Your task to perform on an android device: open app "Fetch Rewards" (install if not already installed) and go to login screen Image 0: 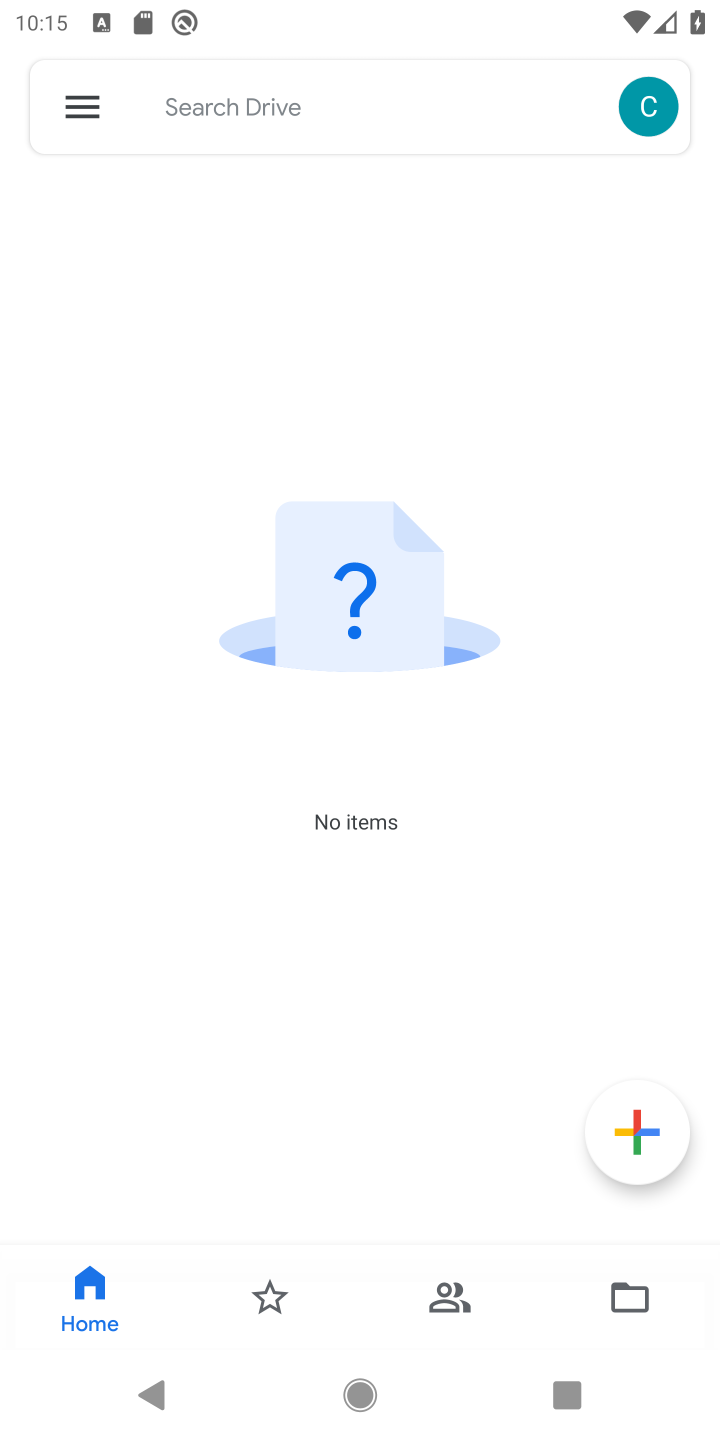
Step 0: press home button
Your task to perform on an android device: open app "Fetch Rewards" (install if not already installed) and go to login screen Image 1: 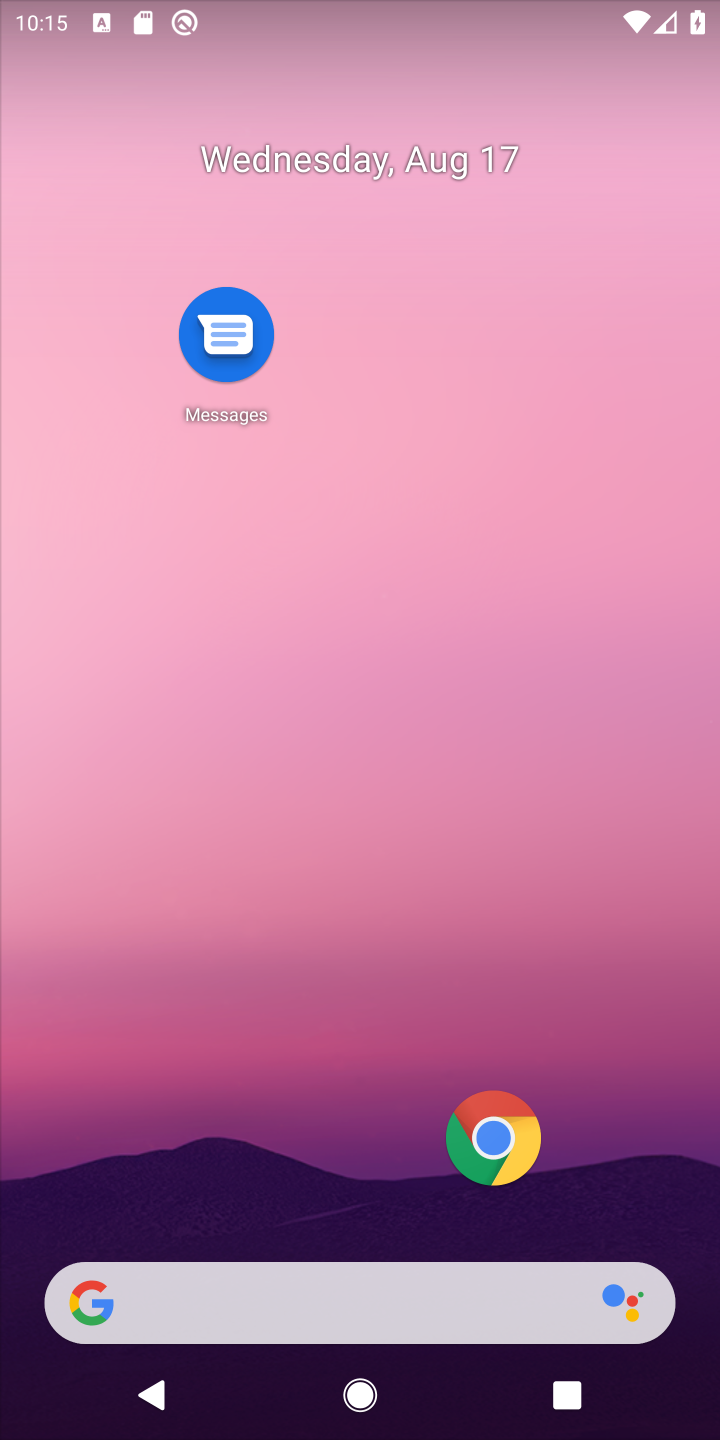
Step 1: drag from (335, 989) to (419, 290)
Your task to perform on an android device: open app "Fetch Rewards" (install if not already installed) and go to login screen Image 2: 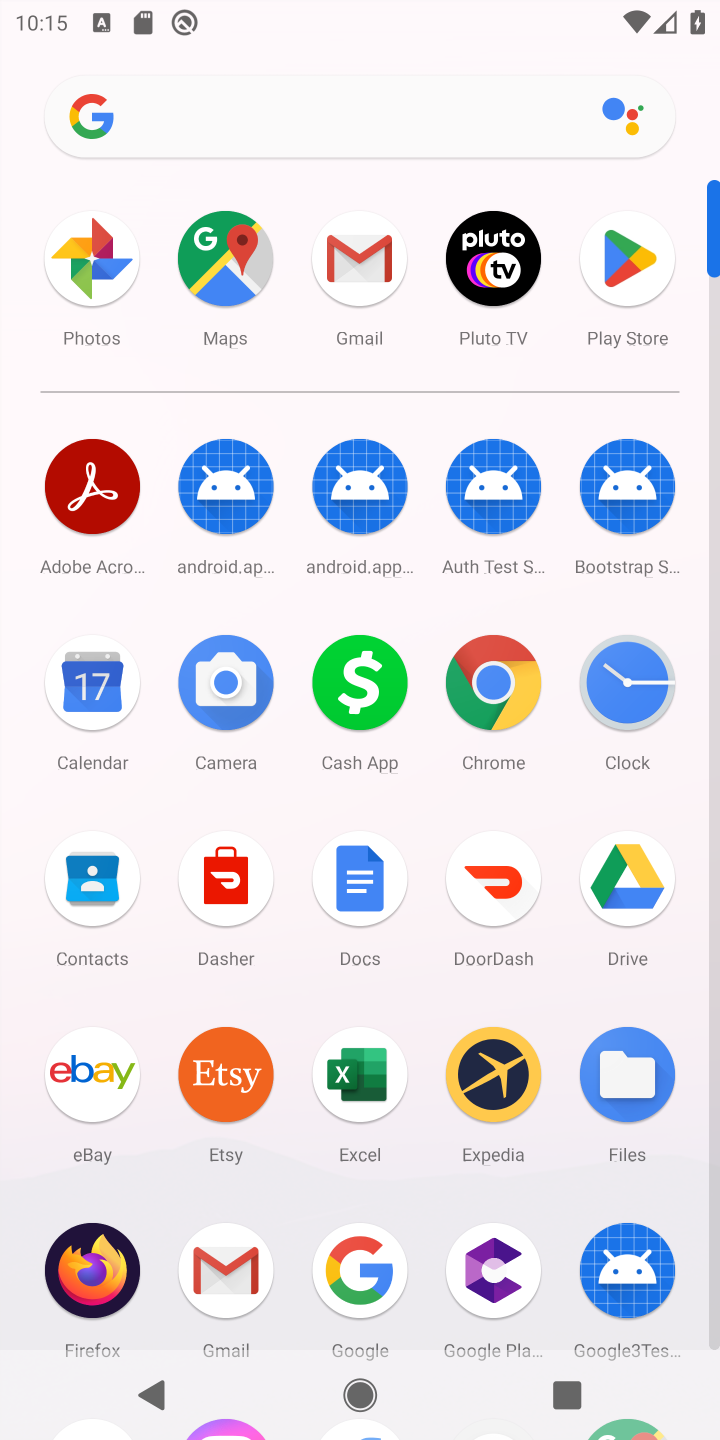
Step 2: click (636, 220)
Your task to perform on an android device: open app "Fetch Rewards" (install if not already installed) and go to login screen Image 3: 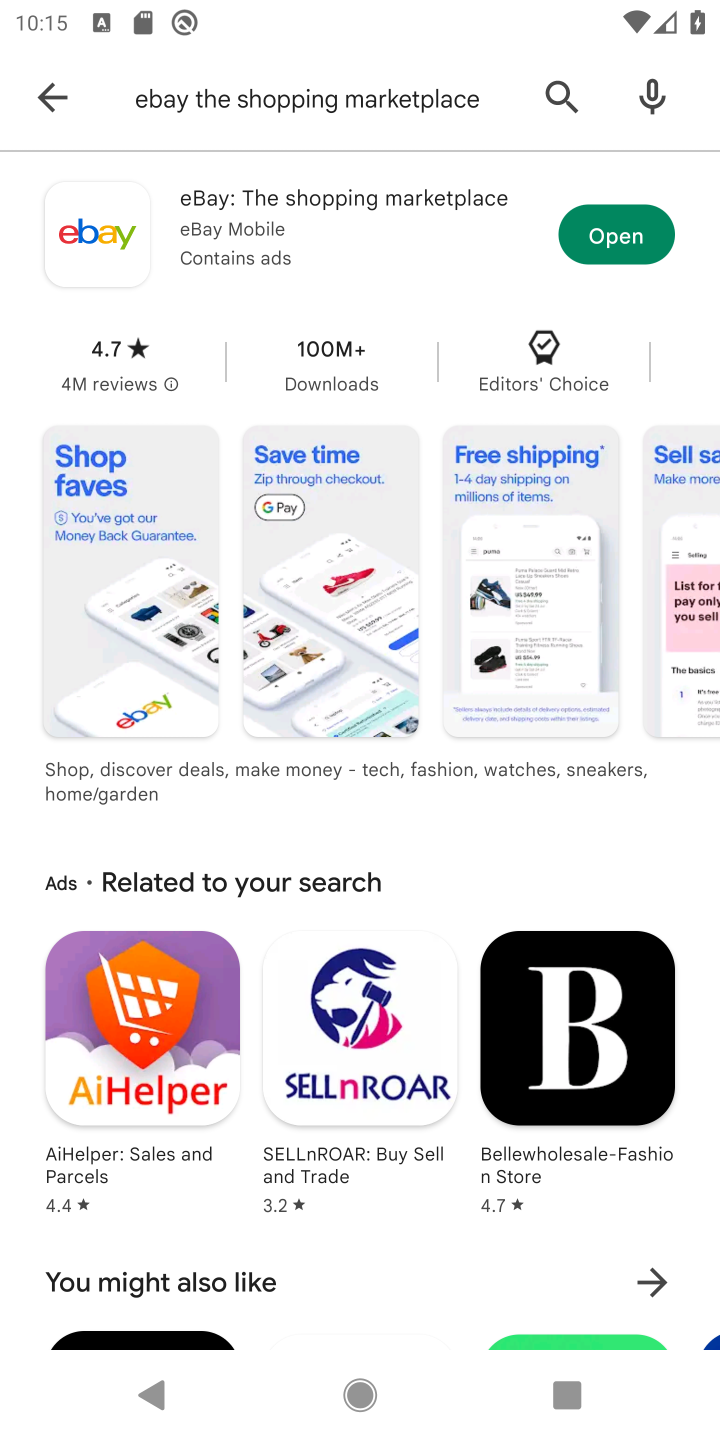
Step 3: click (62, 109)
Your task to perform on an android device: open app "Fetch Rewards" (install if not already installed) and go to login screen Image 4: 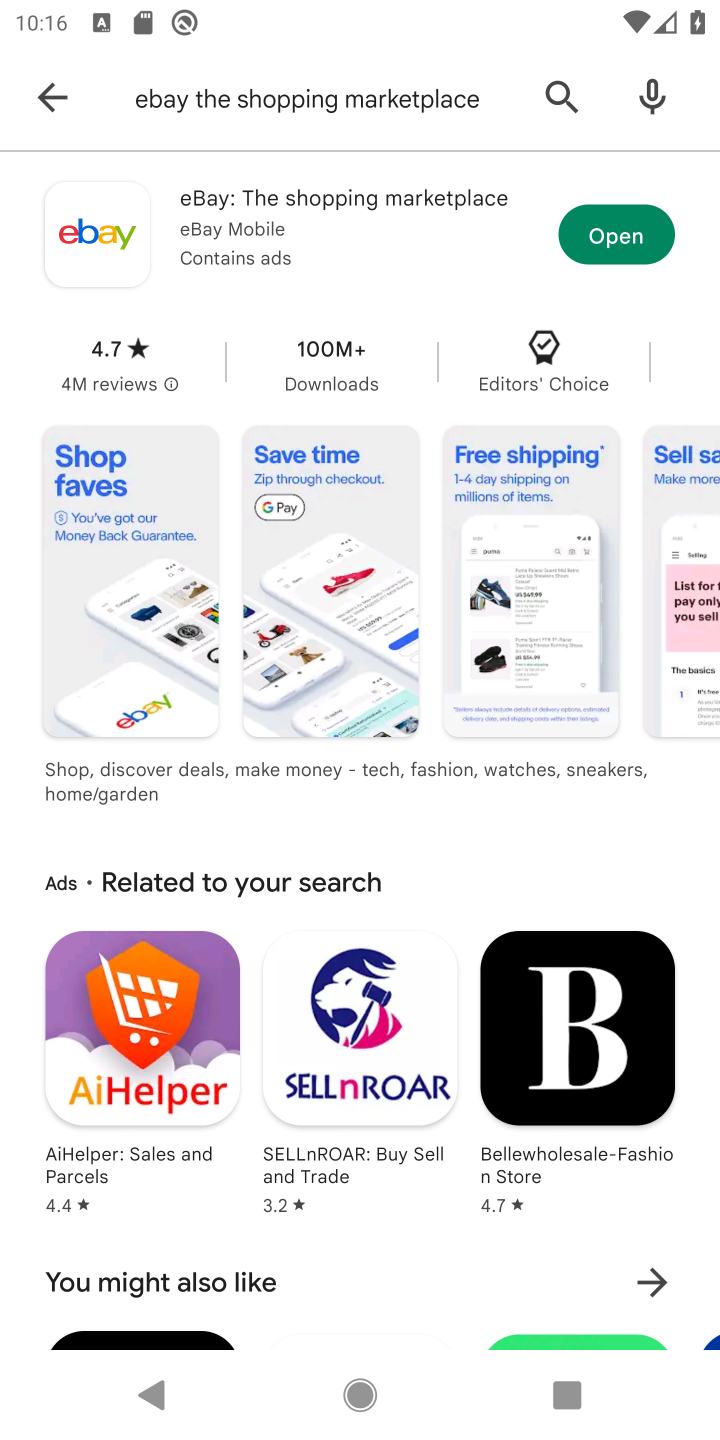
Step 4: click (52, 84)
Your task to perform on an android device: open app "Fetch Rewards" (install if not already installed) and go to login screen Image 5: 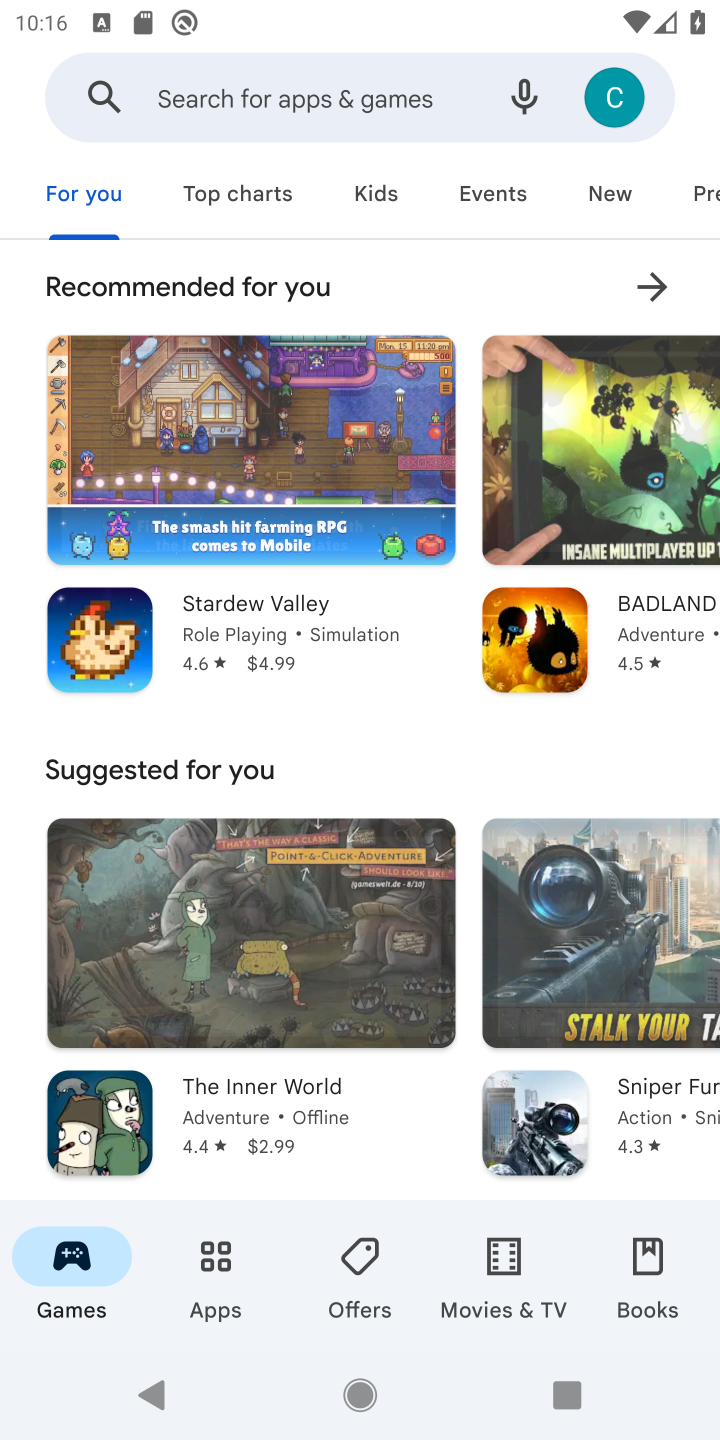
Step 5: click (327, 83)
Your task to perform on an android device: open app "Fetch Rewards" (install if not already installed) and go to login screen Image 6: 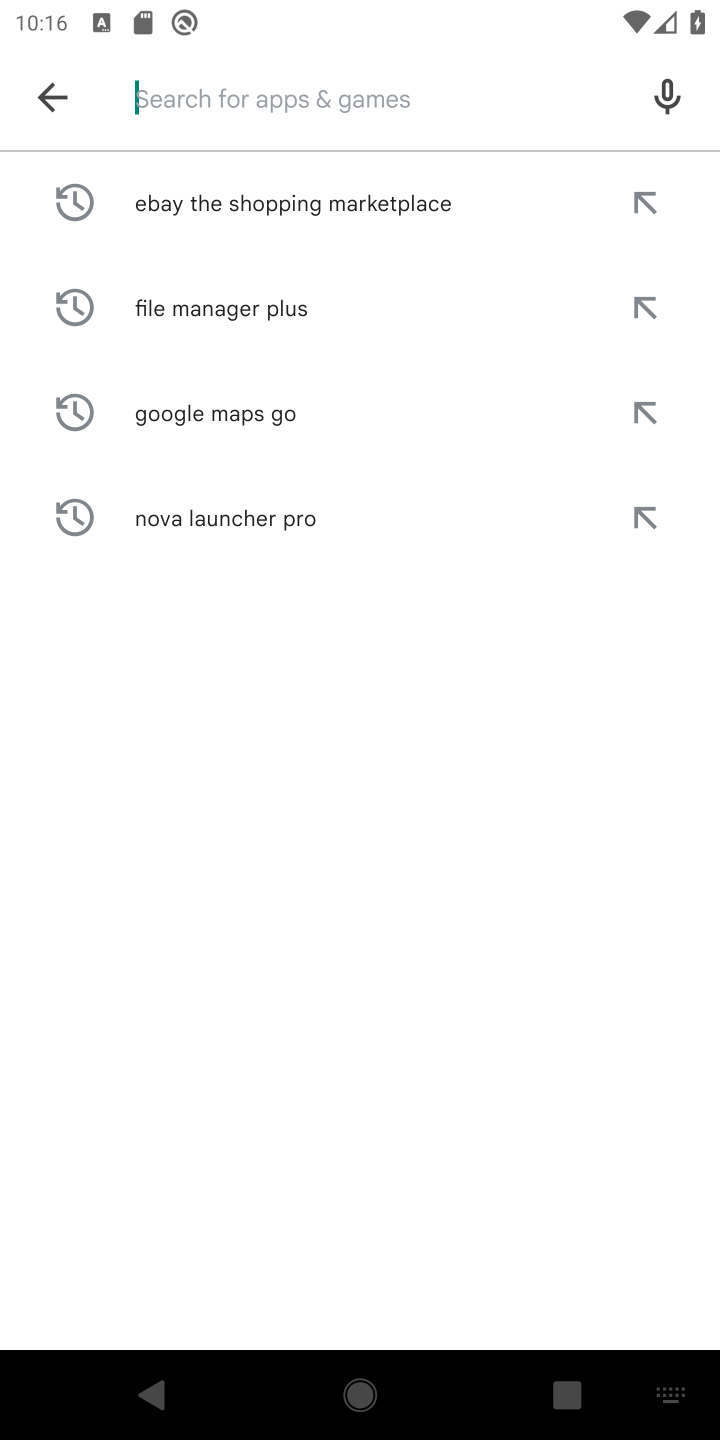
Step 6: type "Fetch Rewards "
Your task to perform on an android device: open app "Fetch Rewards" (install if not already installed) and go to login screen Image 7: 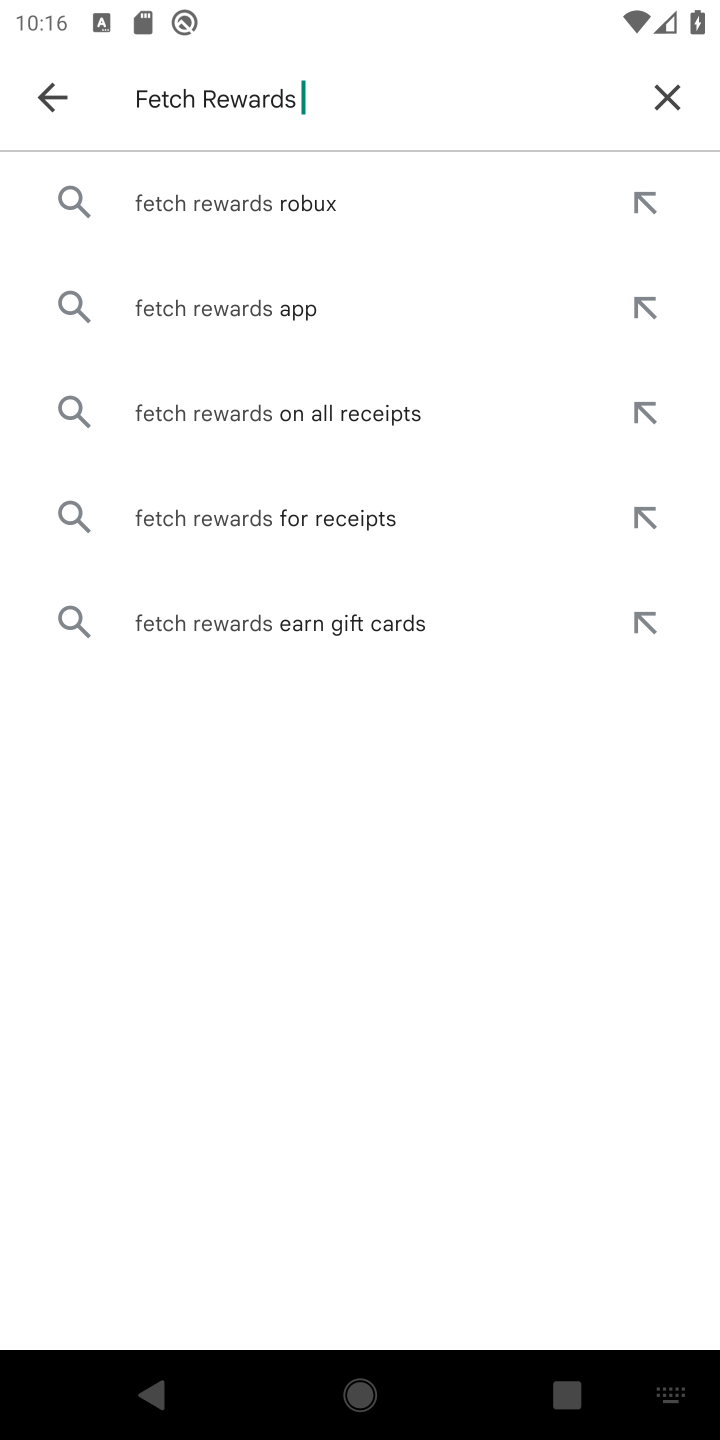
Step 7: click (187, 222)
Your task to perform on an android device: open app "Fetch Rewards" (install if not already installed) and go to login screen Image 8: 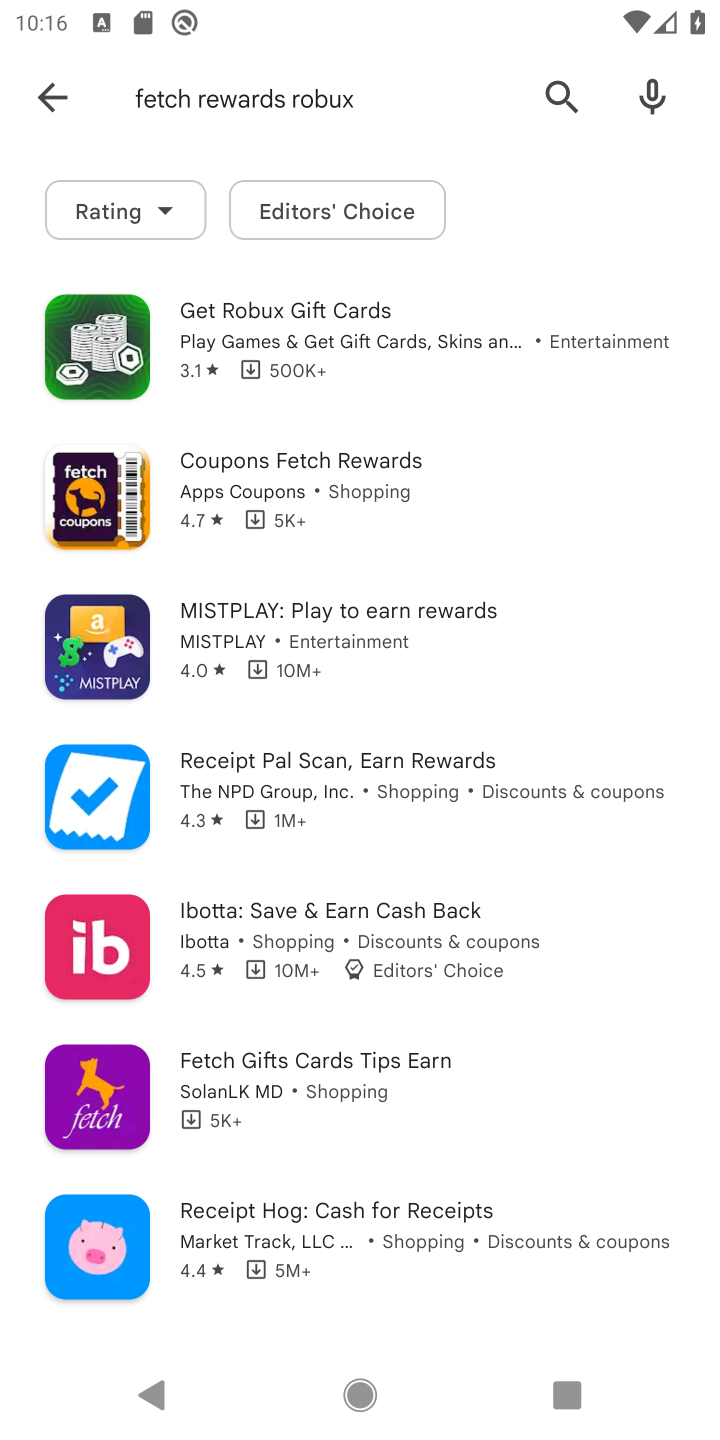
Step 8: task complete